Your task to perform on an android device: Go to notification settings Image 0: 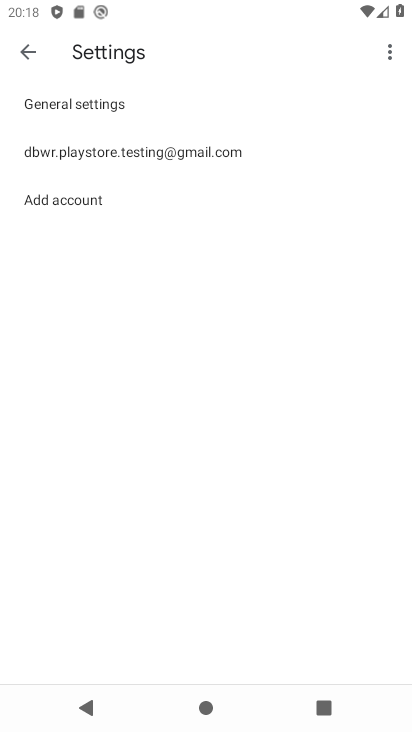
Step 0: press home button
Your task to perform on an android device: Go to notification settings Image 1: 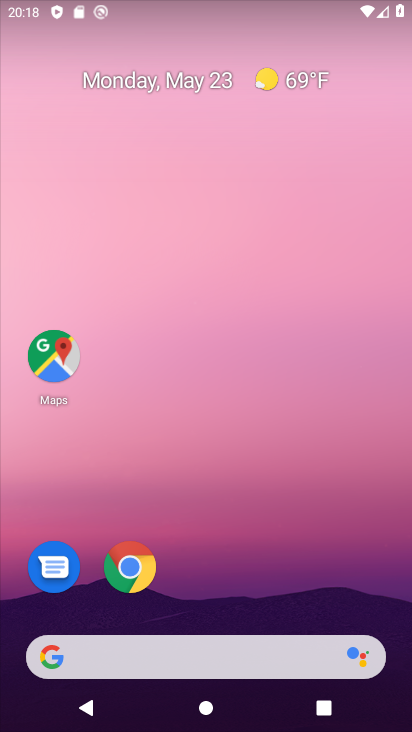
Step 1: drag from (202, 596) to (197, 0)
Your task to perform on an android device: Go to notification settings Image 2: 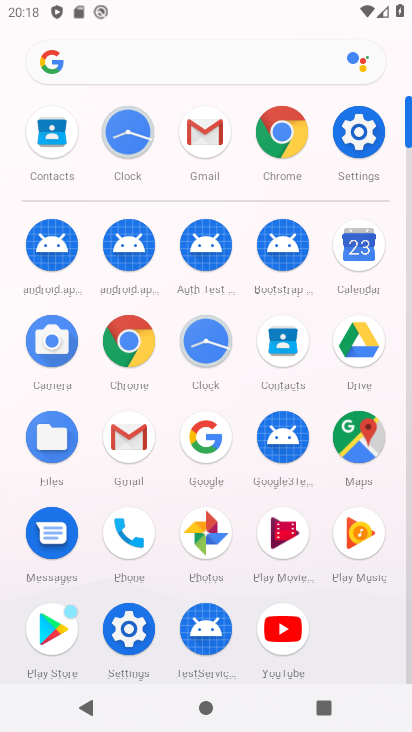
Step 2: click (355, 144)
Your task to perform on an android device: Go to notification settings Image 3: 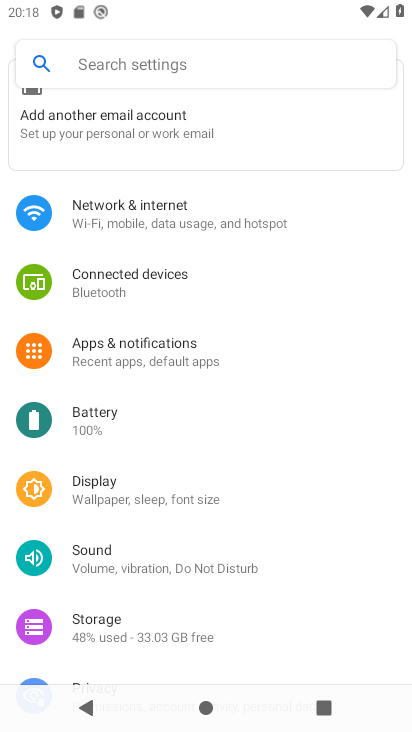
Step 3: click (172, 349)
Your task to perform on an android device: Go to notification settings Image 4: 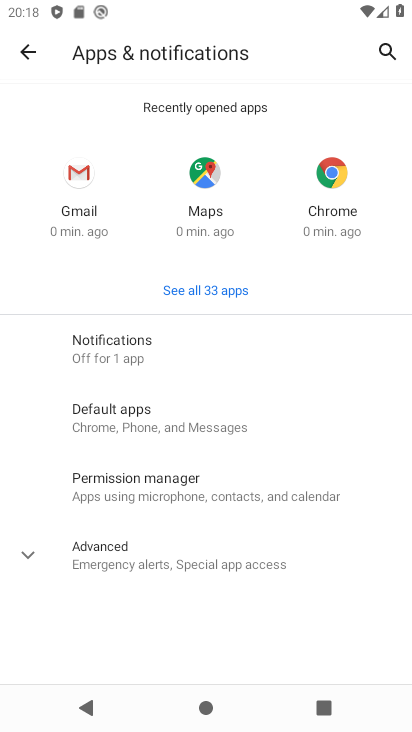
Step 4: click (135, 342)
Your task to perform on an android device: Go to notification settings Image 5: 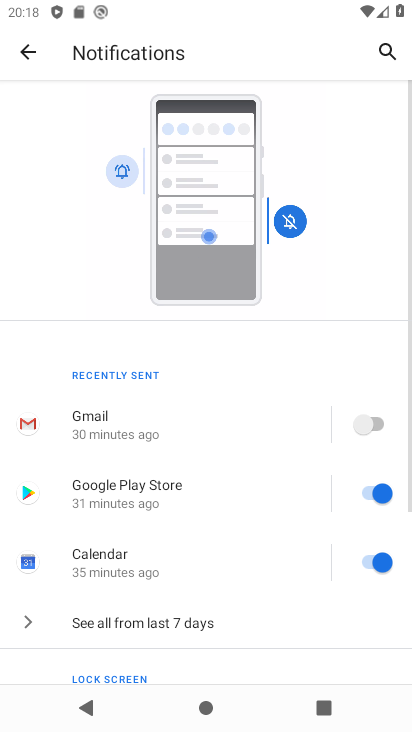
Step 5: task complete